Your task to perform on an android device: turn off airplane mode Image 0: 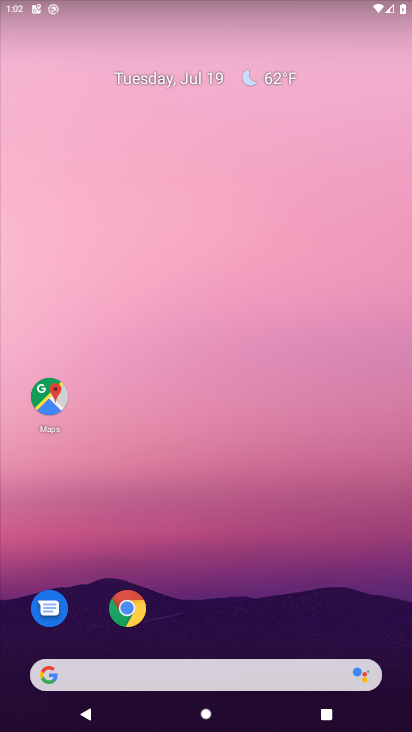
Step 0: press home button
Your task to perform on an android device: turn off airplane mode Image 1: 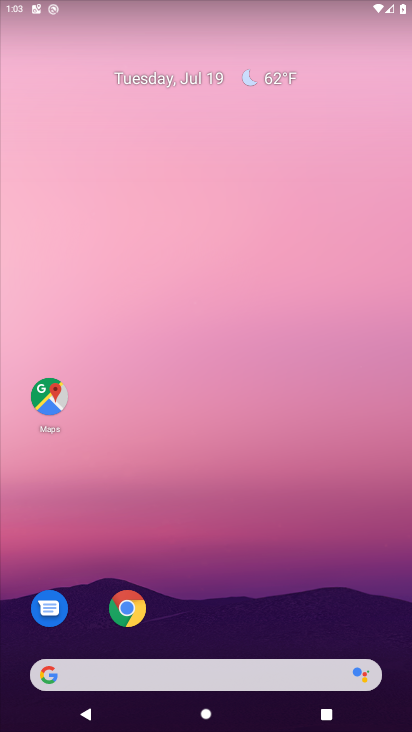
Step 1: task complete